Your task to perform on an android device: turn smart compose on in the gmail app Image 0: 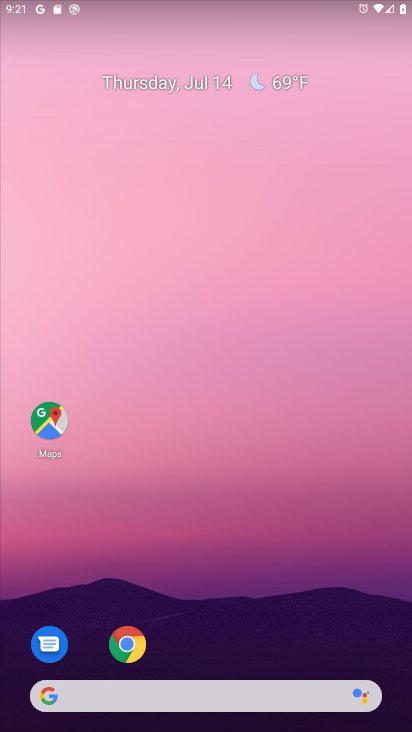
Step 0: drag from (217, 630) to (243, 236)
Your task to perform on an android device: turn smart compose on in the gmail app Image 1: 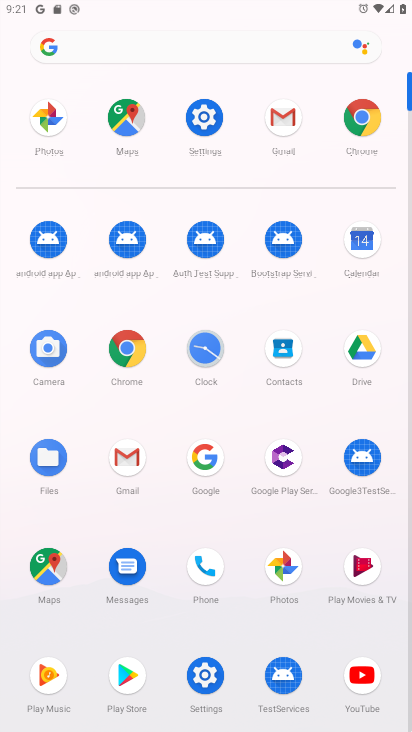
Step 1: click (285, 122)
Your task to perform on an android device: turn smart compose on in the gmail app Image 2: 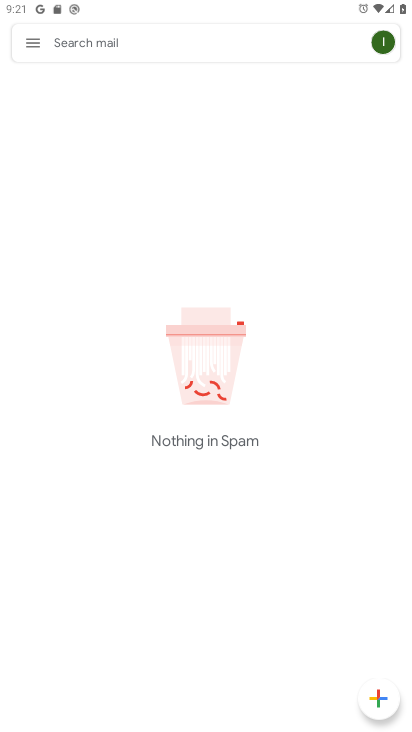
Step 2: click (38, 53)
Your task to perform on an android device: turn smart compose on in the gmail app Image 3: 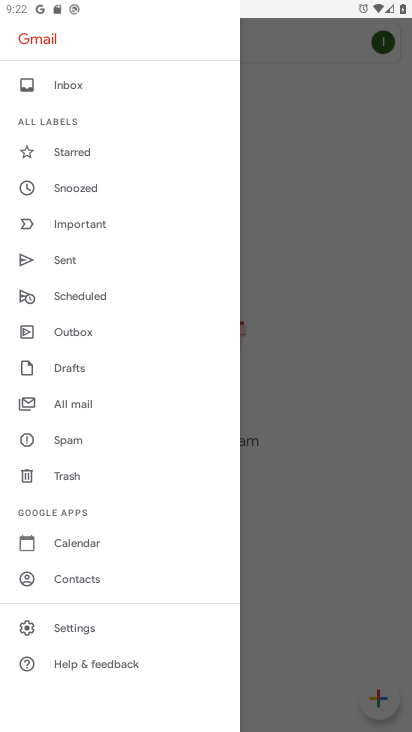
Step 3: click (105, 617)
Your task to perform on an android device: turn smart compose on in the gmail app Image 4: 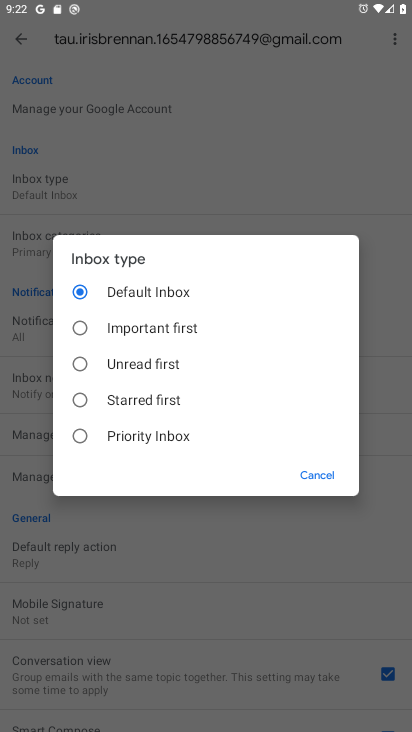
Step 4: click (302, 481)
Your task to perform on an android device: turn smart compose on in the gmail app Image 5: 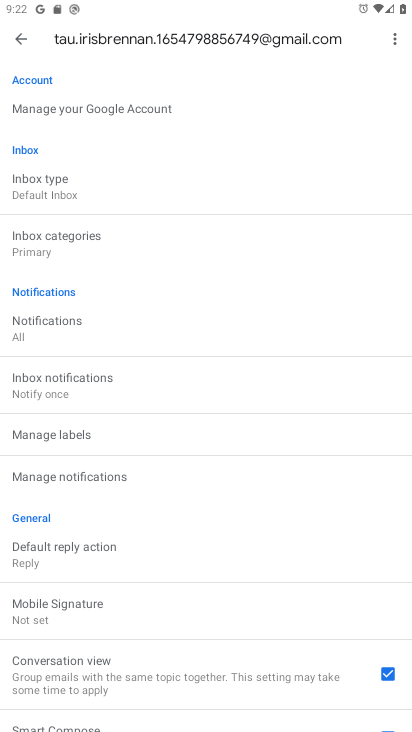
Step 5: task complete